Your task to perform on an android device: What is the recent news? Image 0: 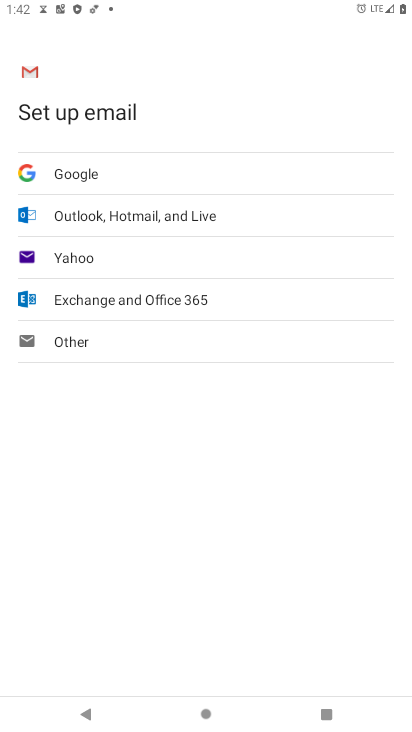
Step 0: press home button
Your task to perform on an android device: What is the recent news? Image 1: 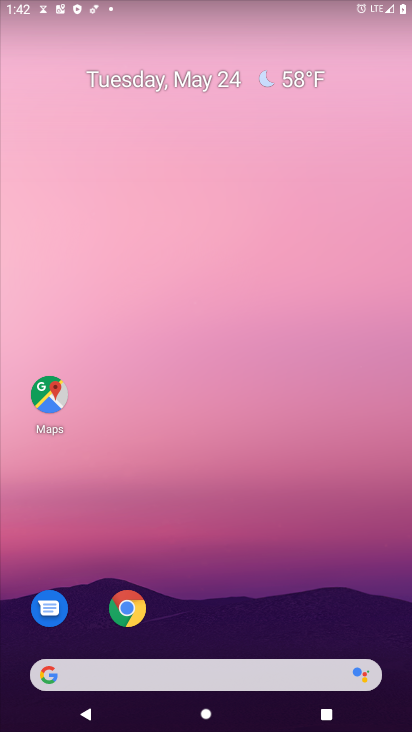
Step 1: drag from (244, 691) to (226, 69)
Your task to perform on an android device: What is the recent news? Image 2: 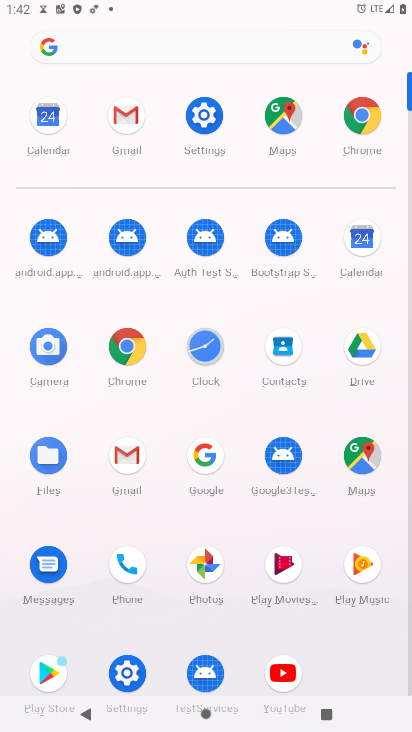
Step 2: click (123, 46)
Your task to perform on an android device: What is the recent news? Image 3: 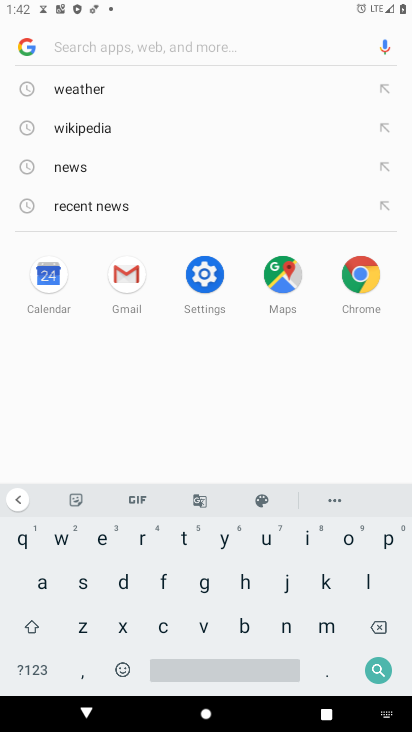
Step 3: click (136, 196)
Your task to perform on an android device: What is the recent news? Image 4: 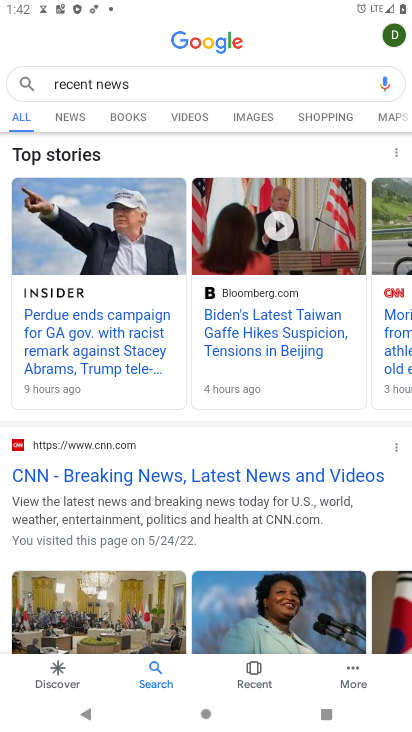
Step 4: task complete